Your task to perform on an android device: turn on translation in the chrome app Image 0: 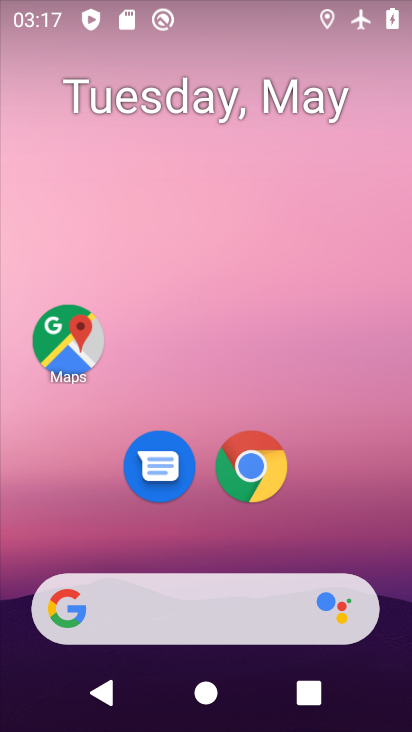
Step 0: drag from (306, 559) to (327, 204)
Your task to perform on an android device: turn on translation in the chrome app Image 1: 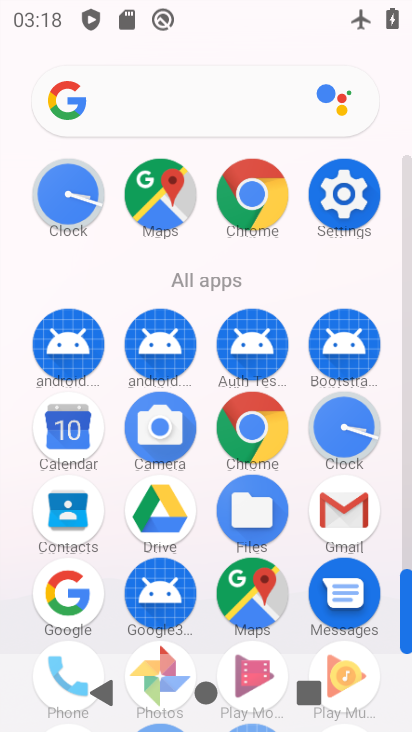
Step 1: click (247, 198)
Your task to perform on an android device: turn on translation in the chrome app Image 2: 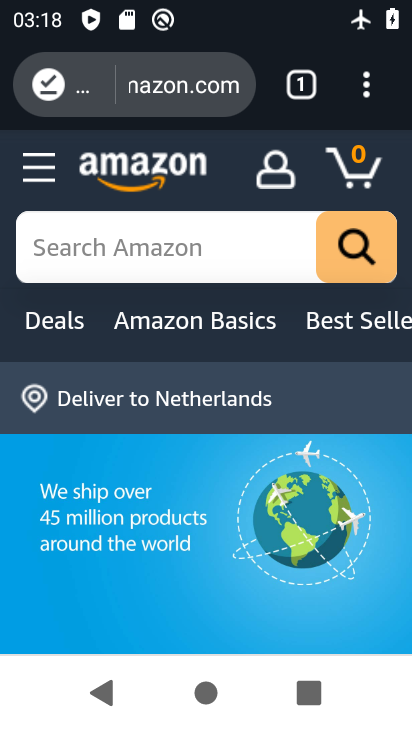
Step 2: click (359, 84)
Your task to perform on an android device: turn on translation in the chrome app Image 3: 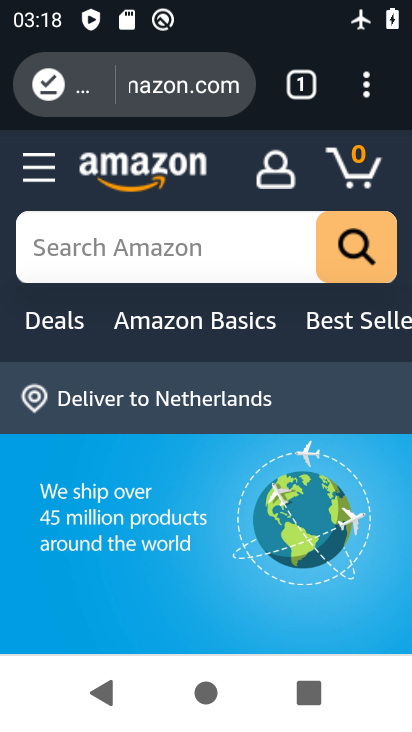
Step 3: click (363, 80)
Your task to perform on an android device: turn on translation in the chrome app Image 4: 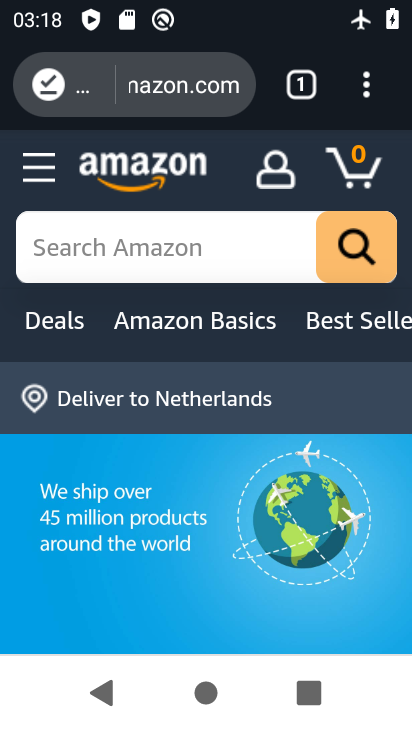
Step 4: click (341, 84)
Your task to perform on an android device: turn on translation in the chrome app Image 5: 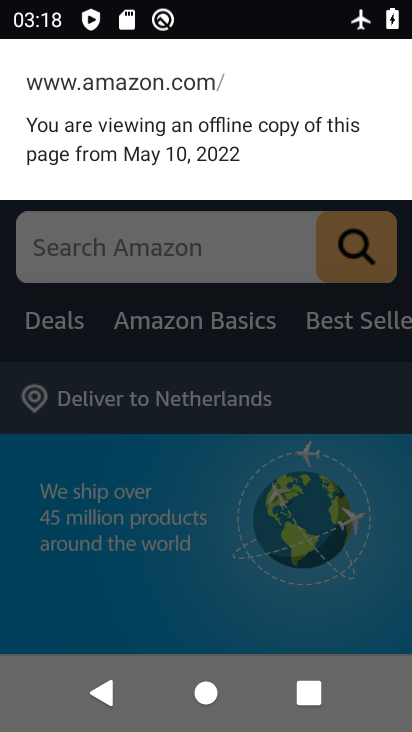
Step 5: click (347, 88)
Your task to perform on an android device: turn on translation in the chrome app Image 6: 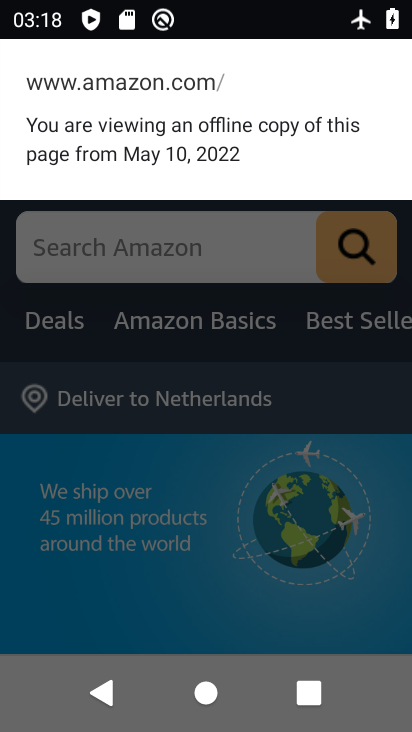
Step 6: press back button
Your task to perform on an android device: turn on translation in the chrome app Image 7: 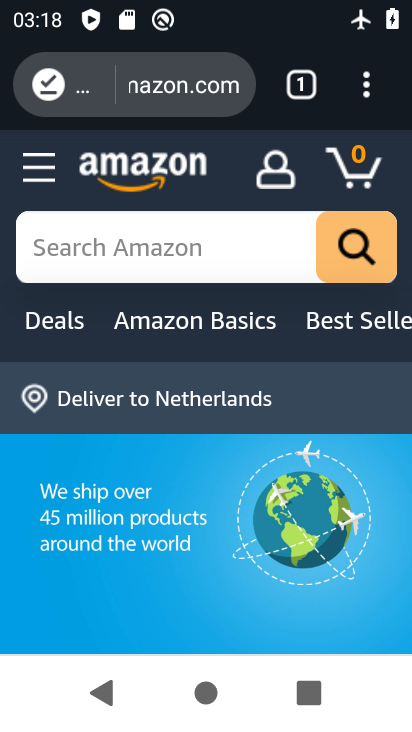
Step 7: click (364, 98)
Your task to perform on an android device: turn on translation in the chrome app Image 8: 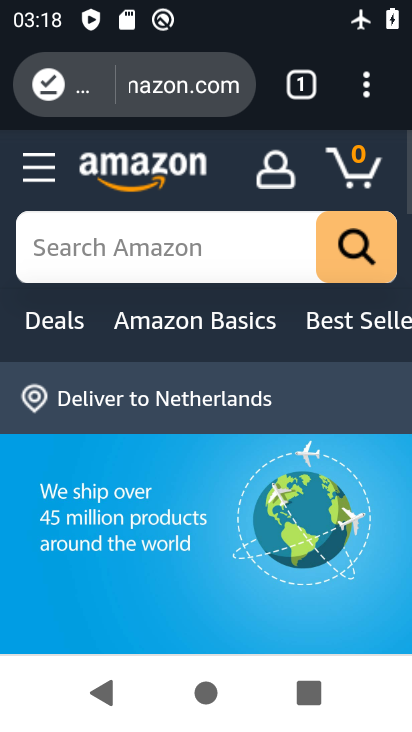
Step 8: click (359, 102)
Your task to perform on an android device: turn on translation in the chrome app Image 9: 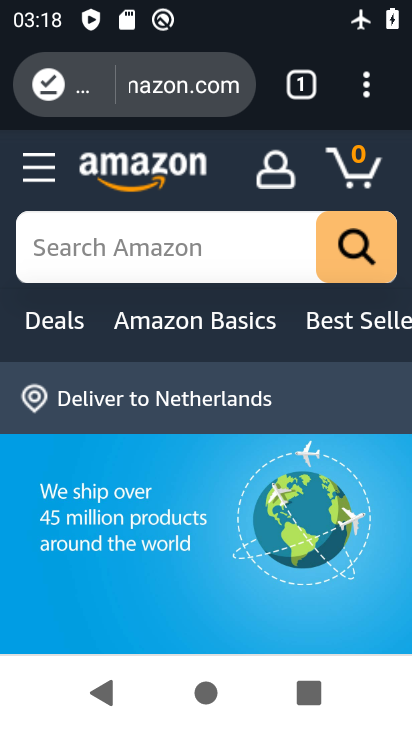
Step 9: click (362, 82)
Your task to perform on an android device: turn on translation in the chrome app Image 10: 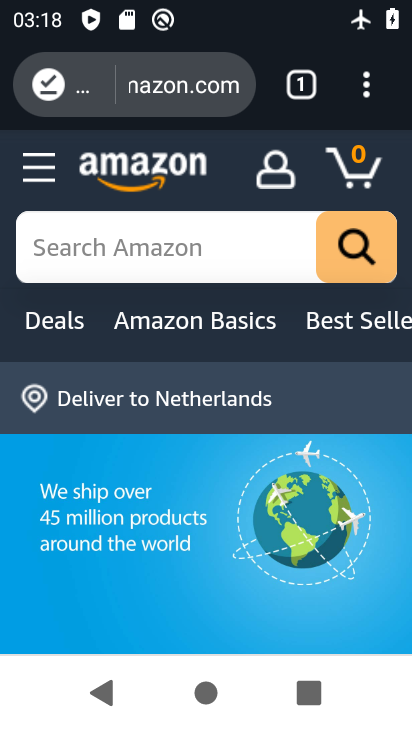
Step 10: click (334, 86)
Your task to perform on an android device: turn on translation in the chrome app Image 11: 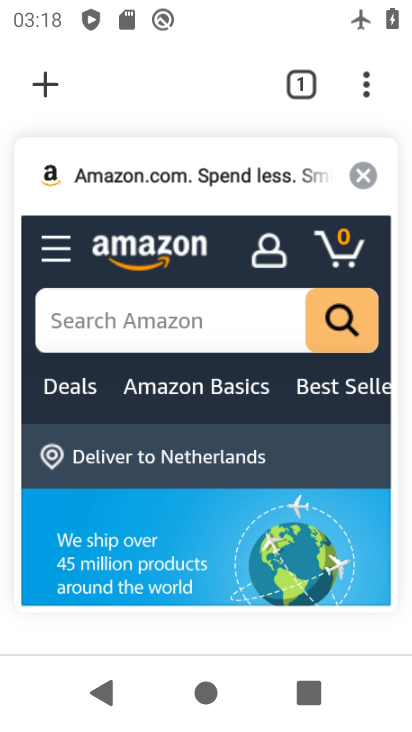
Step 11: click (26, 88)
Your task to perform on an android device: turn on translation in the chrome app Image 12: 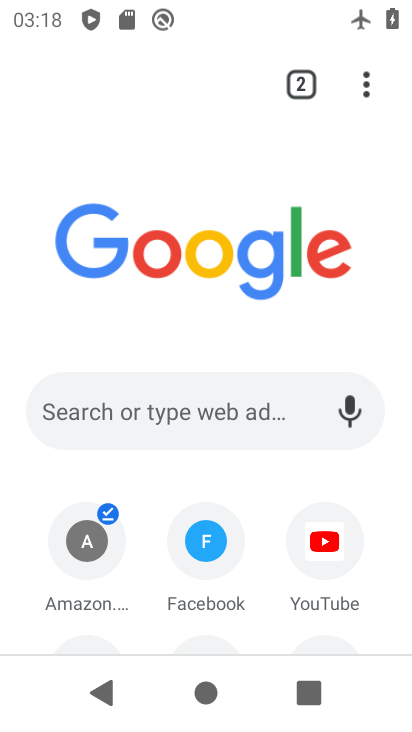
Step 12: click (349, 68)
Your task to perform on an android device: turn on translation in the chrome app Image 13: 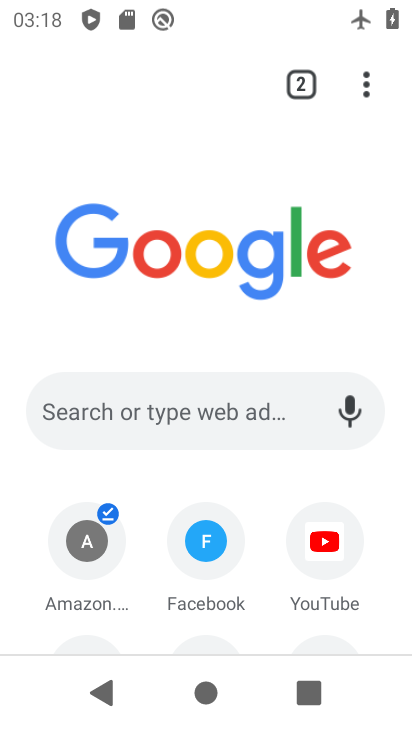
Step 13: click (360, 82)
Your task to perform on an android device: turn on translation in the chrome app Image 14: 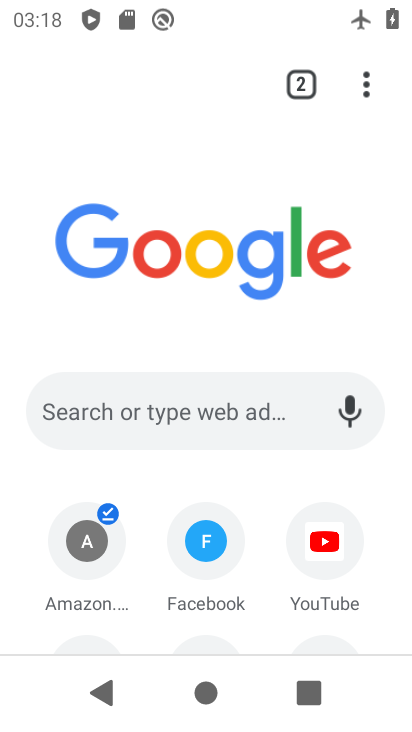
Step 14: click (336, 78)
Your task to perform on an android device: turn on translation in the chrome app Image 15: 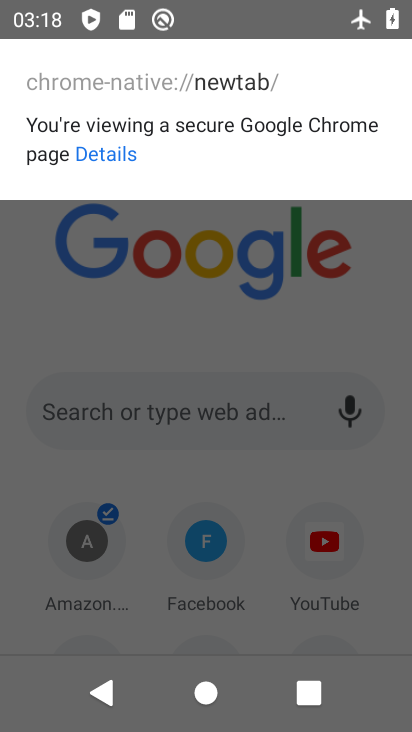
Step 15: click (347, 231)
Your task to perform on an android device: turn on translation in the chrome app Image 16: 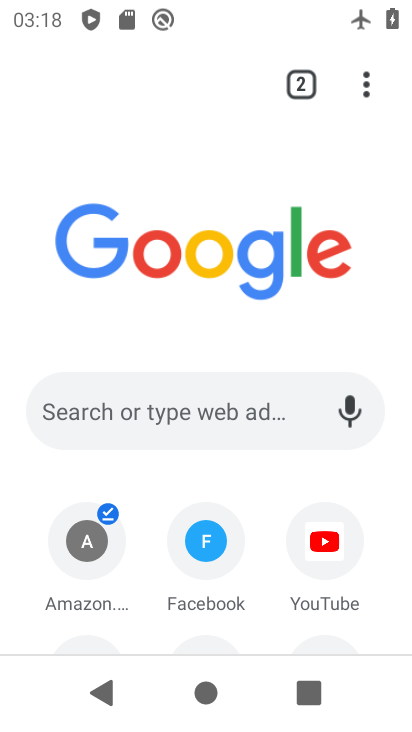
Step 16: task complete